Your task to perform on an android device: refresh tabs in the chrome app Image 0: 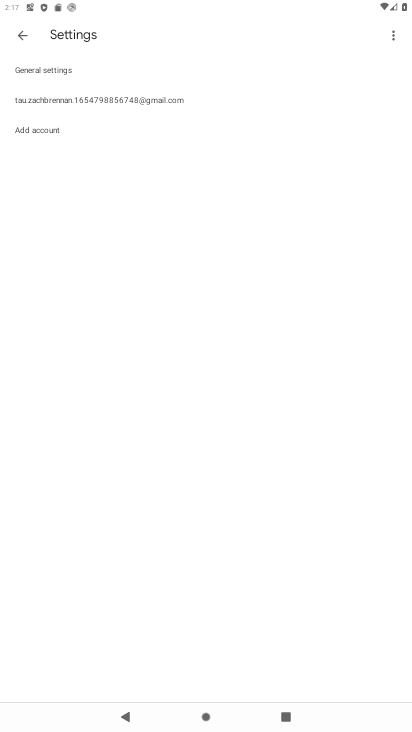
Step 0: press home button
Your task to perform on an android device: refresh tabs in the chrome app Image 1: 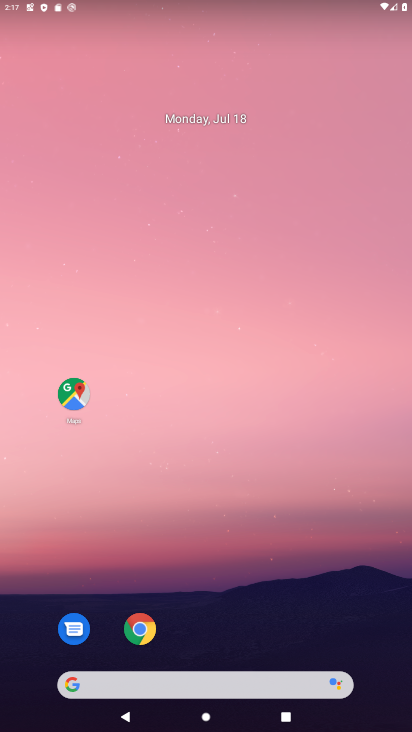
Step 1: click (142, 620)
Your task to perform on an android device: refresh tabs in the chrome app Image 2: 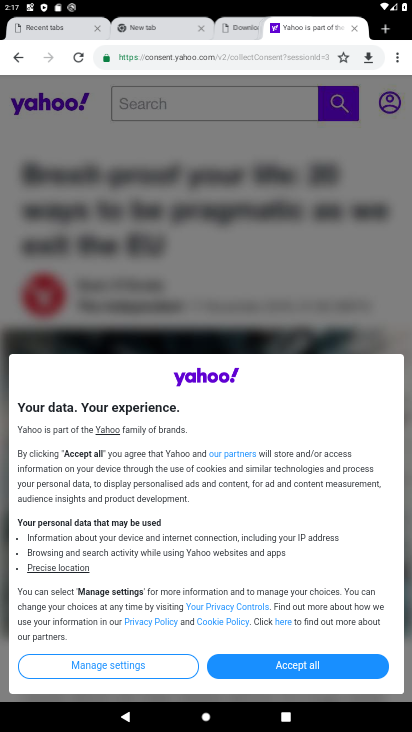
Step 2: click (71, 50)
Your task to perform on an android device: refresh tabs in the chrome app Image 3: 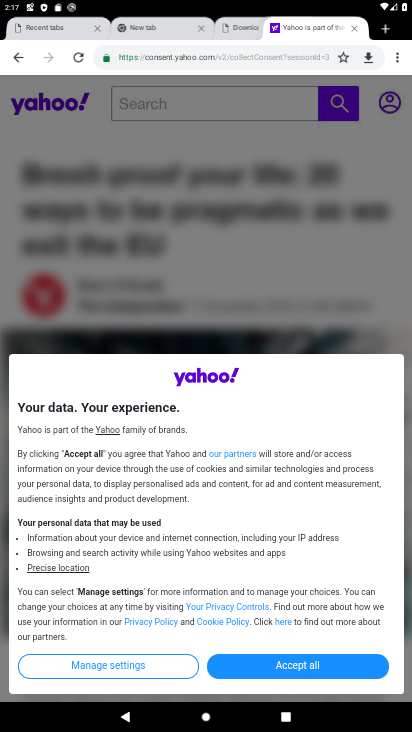
Step 3: task complete